Your task to perform on an android device: change the clock display to show seconds Image 0: 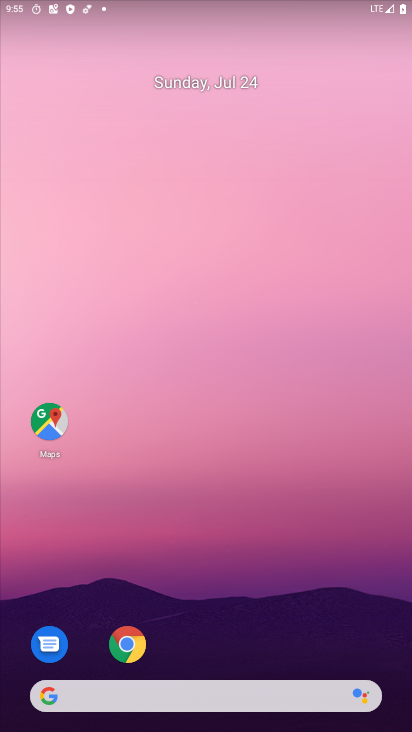
Step 0: drag from (219, 669) to (210, 82)
Your task to perform on an android device: change the clock display to show seconds Image 1: 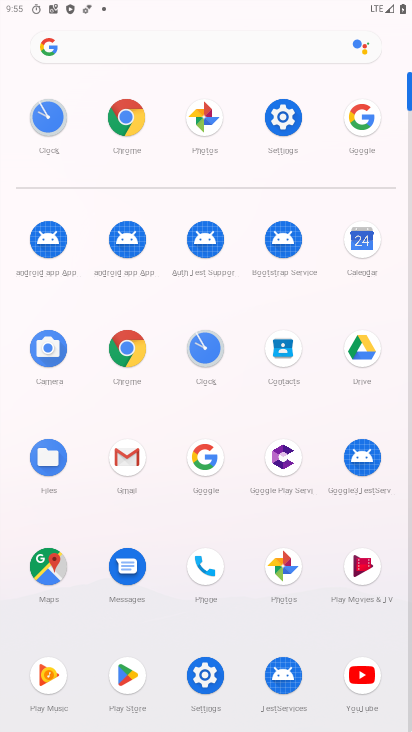
Step 1: click (206, 348)
Your task to perform on an android device: change the clock display to show seconds Image 2: 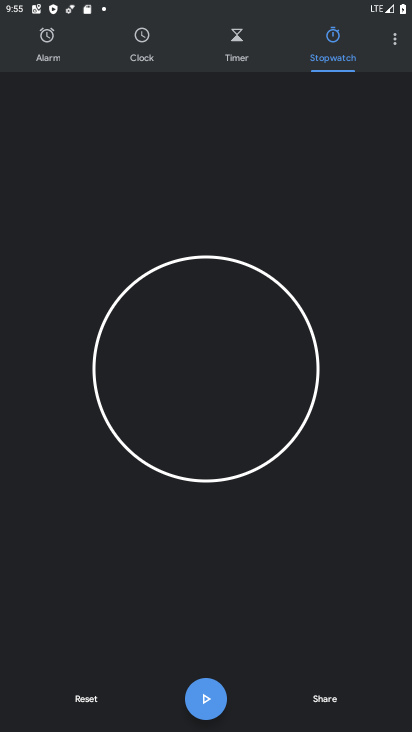
Step 2: click (385, 41)
Your task to perform on an android device: change the clock display to show seconds Image 3: 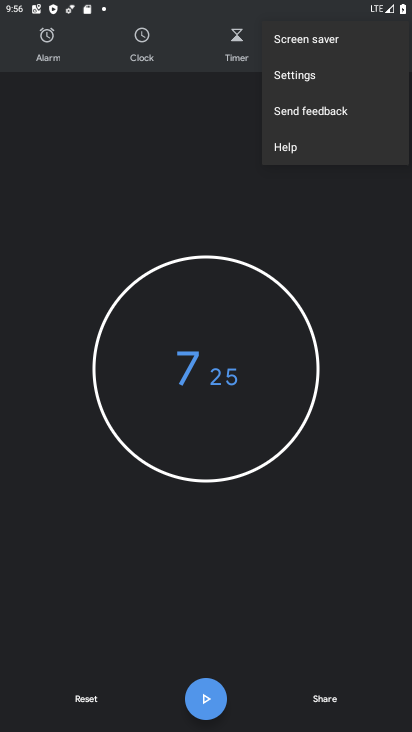
Step 3: click (296, 77)
Your task to perform on an android device: change the clock display to show seconds Image 4: 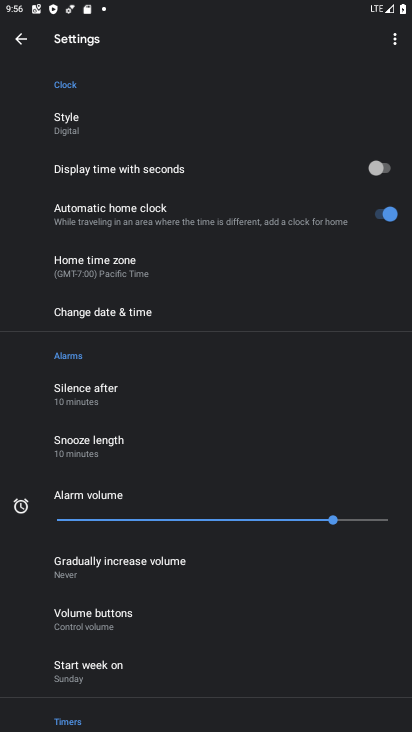
Step 4: click (383, 166)
Your task to perform on an android device: change the clock display to show seconds Image 5: 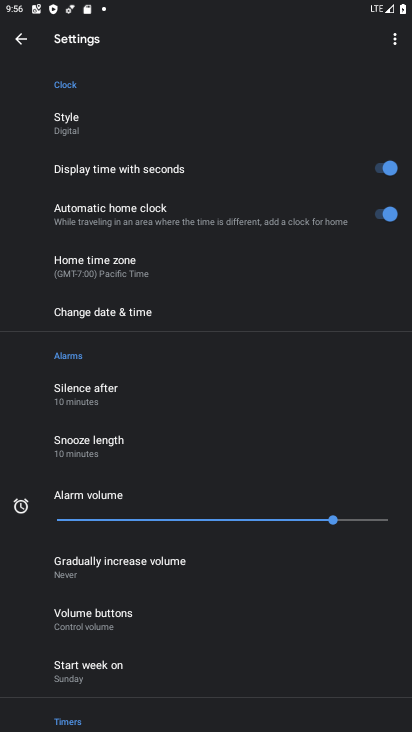
Step 5: task complete